Your task to perform on an android device: check data usage Image 0: 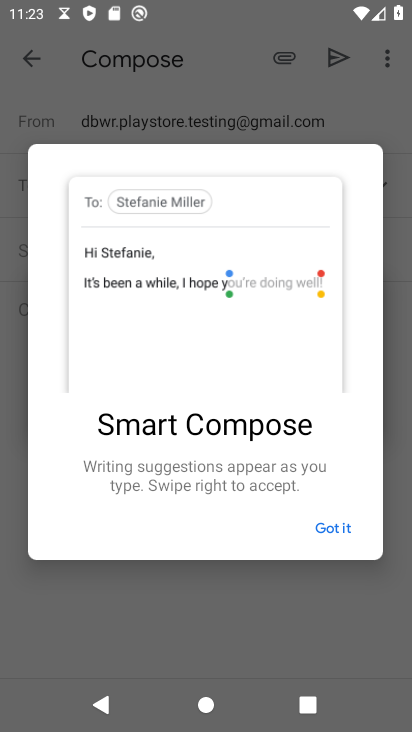
Step 0: press home button
Your task to perform on an android device: check data usage Image 1: 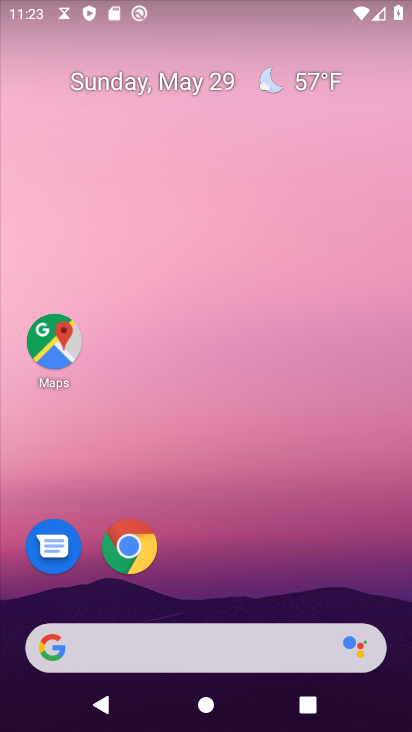
Step 1: drag from (184, 641) to (364, 3)
Your task to perform on an android device: check data usage Image 2: 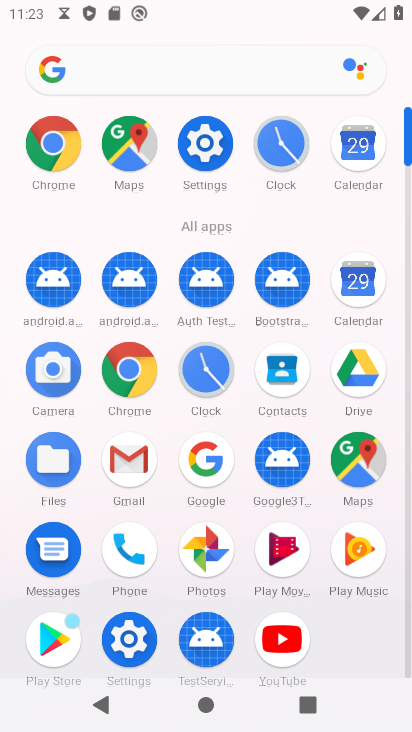
Step 2: click (206, 152)
Your task to perform on an android device: check data usage Image 3: 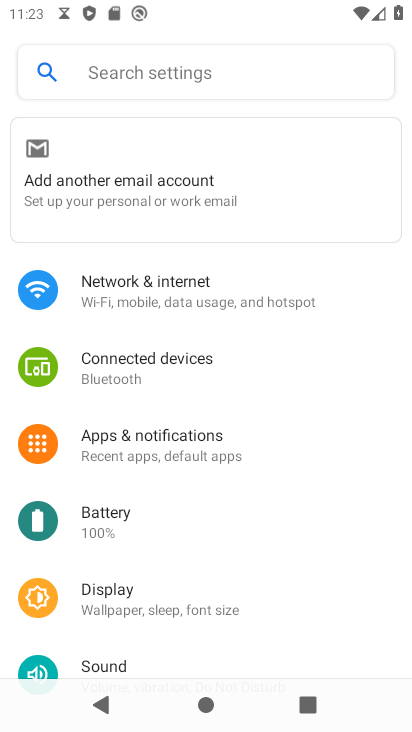
Step 3: click (173, 288)
Your task to perform on an android device: check data usage Image 4: 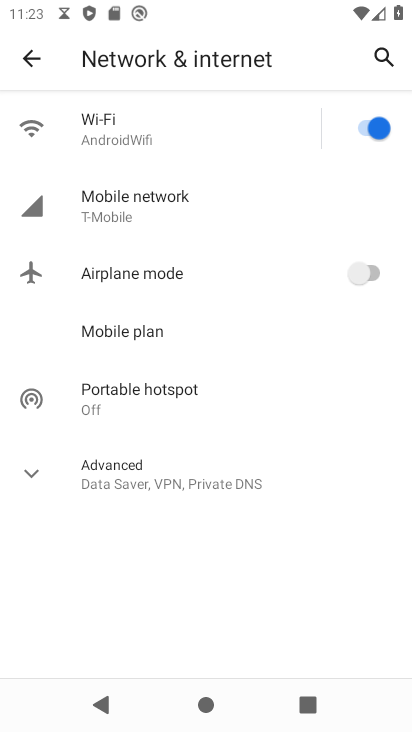
Step 4: click (135, 136)
Your task to perform on an android device: check data usage Image 5: 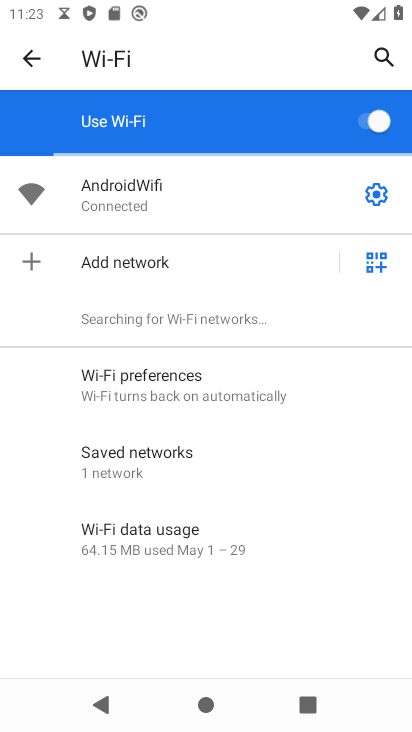
Step 5: click (167, 539)
Your task to perform on an android device: check data usage Image 6: 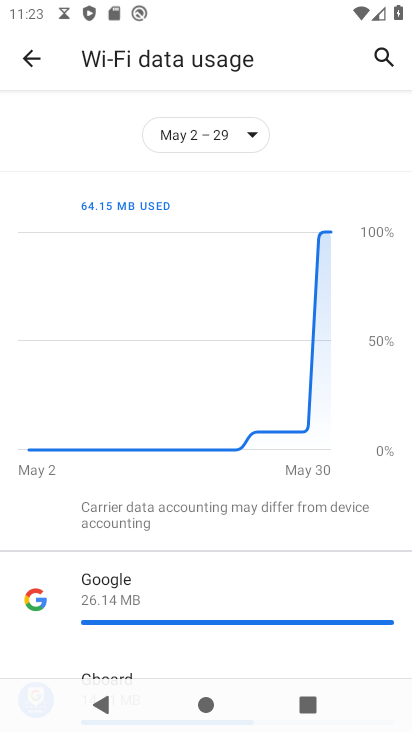
Step 6: task complete